Your task to perform on an android device: open the mobile data screen to see how much data has been used Image 0: 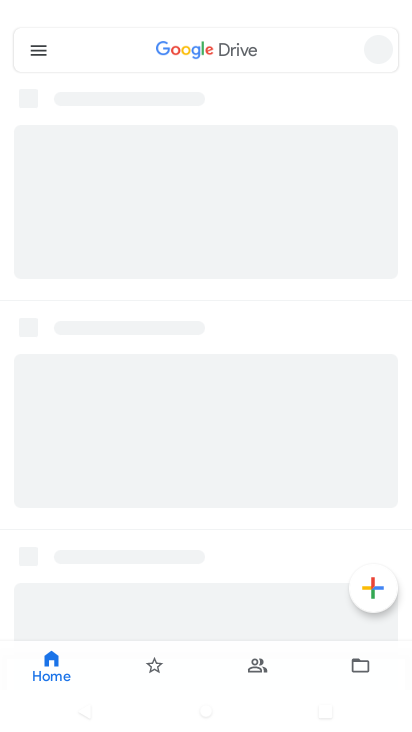
Step 0: click (228, 189)
Your task to perform on an android device: open the mobile data screen to see how much data has been used Image 1: 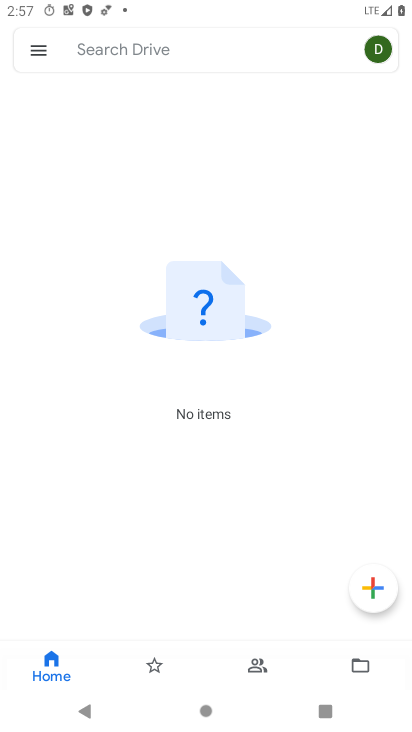
Step 1: press home button
Your task to perform on an android device: open the mobile data screen to see how much data has been used Image 2: 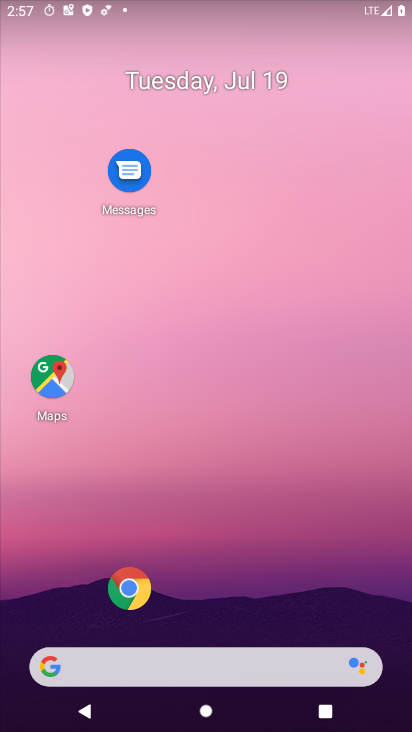
Step 2: drag from (26, 690) to (188, 227)
Your task to perform on an android device: open the mobile data screen to see how much data has been used Image 3: 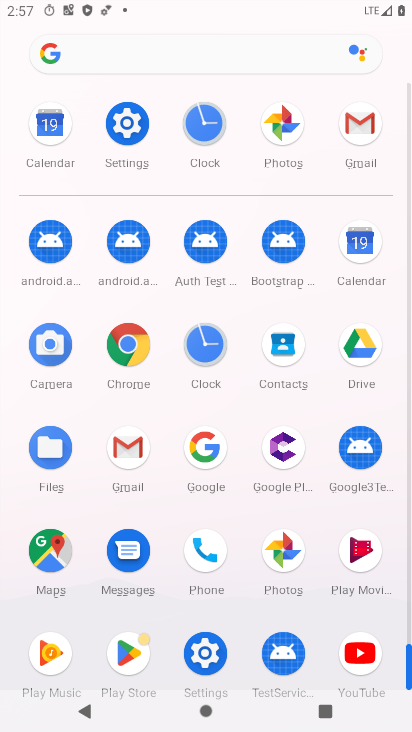
Step 3: click (215, 661)
Your task to perform on an android device: open the mobile data screen to see how much data has been used Image 4: 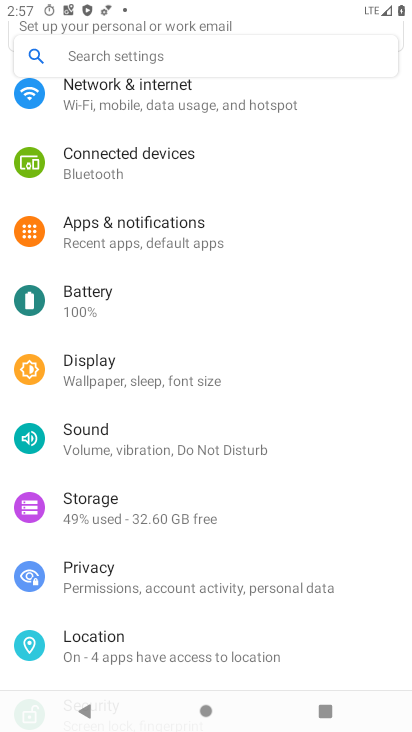
Step 4: drag from (241, 170) to (242, 512)
Your task to perform on an android device: open the mobile data screen to see how much data has been used Image 5: 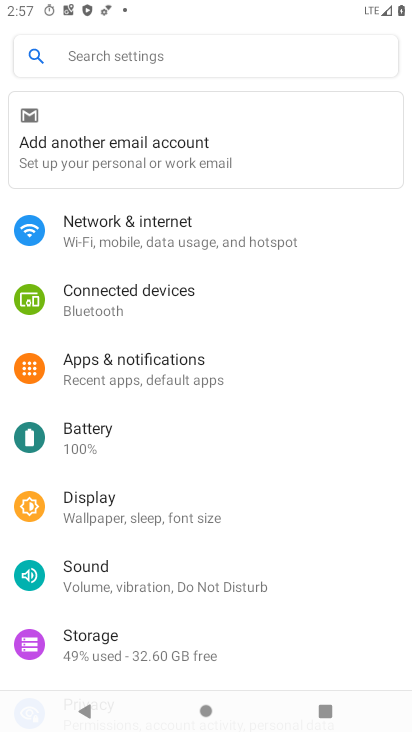
Step 5: click (147, 226)
Your task to perform on an android device: open the mobile data screen to see how much data has been used Image 6: 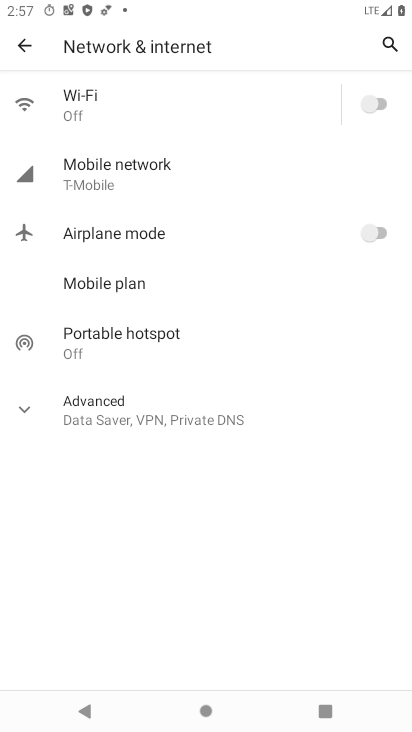
Step 6: click (131, 191)
Your task to perform on an android device: open the mobile data screen to see how much data has been used Image 7: 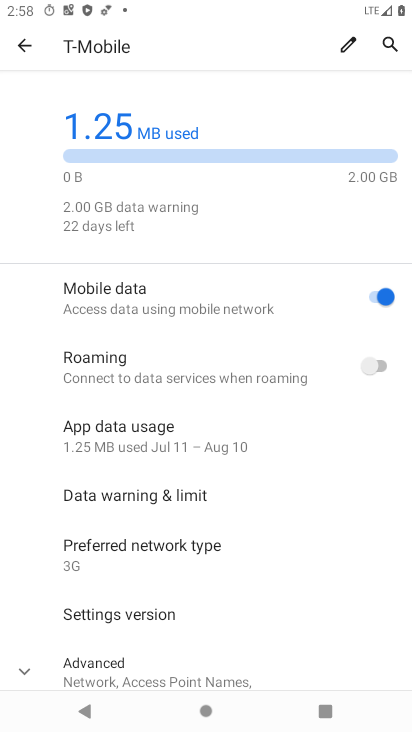
Step 7: task complete